Your task to perform on an android device: move a message to another label in the gmail app Image 0: 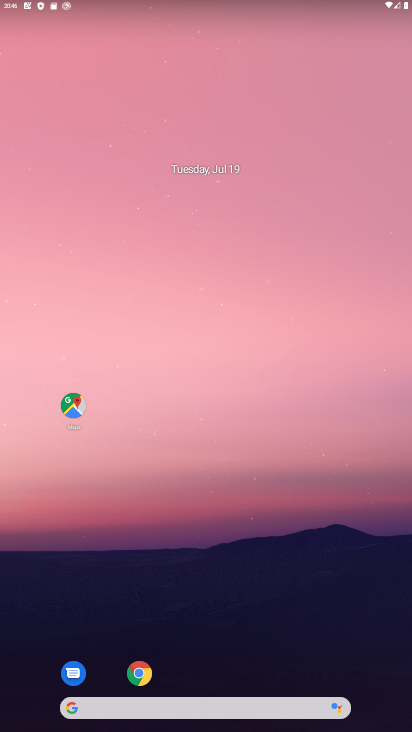
Step 0: drag from (198, 679) to (252, 89)
Your task to perform on an android device: move a message to another label in the gmail app Image 1: 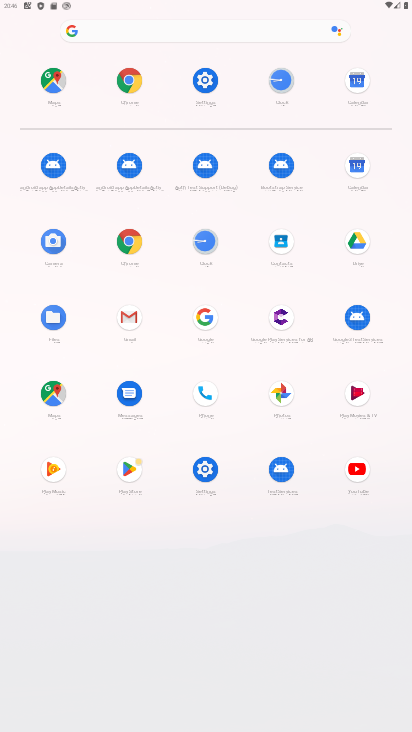
Step 1: click (132, 322)
Your task to perform on an android device: move a message to another label in the gmail app Image 2: 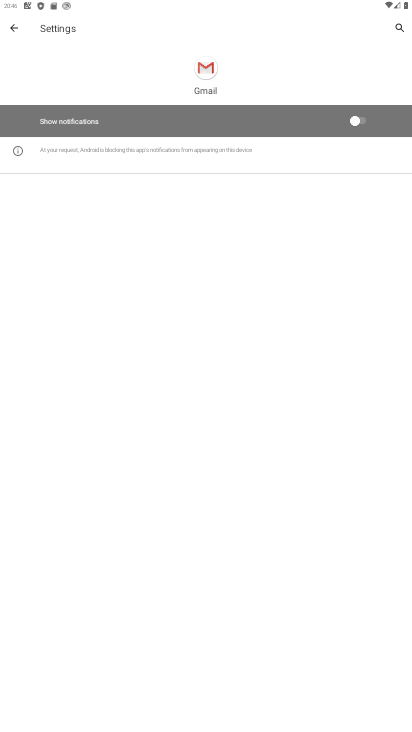
Step 2: click (14, 26)
Your task to perform on an android device: move a message to another label in the gmail app Image 3: 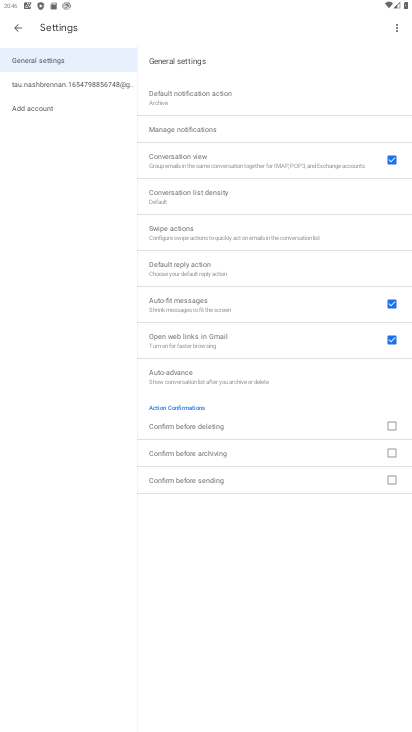
Step 3: click (20, 31)
Your task to perform on an android device: move a message to another label in the gmail app Image 4: 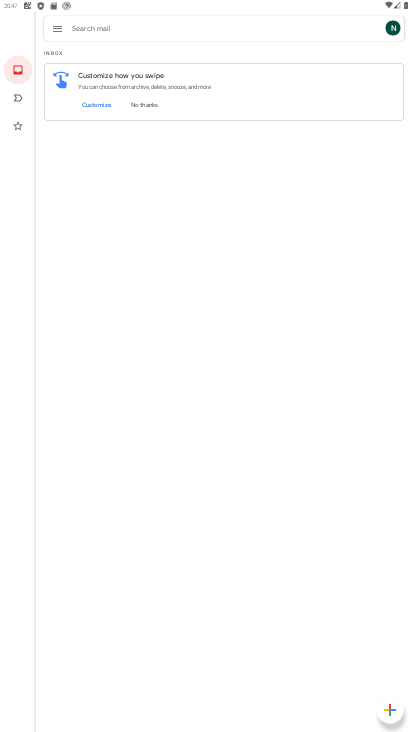
Step 4: click (147, 99)
Your task to perform on an android device: move a message to another label in the gmail app Image 5: 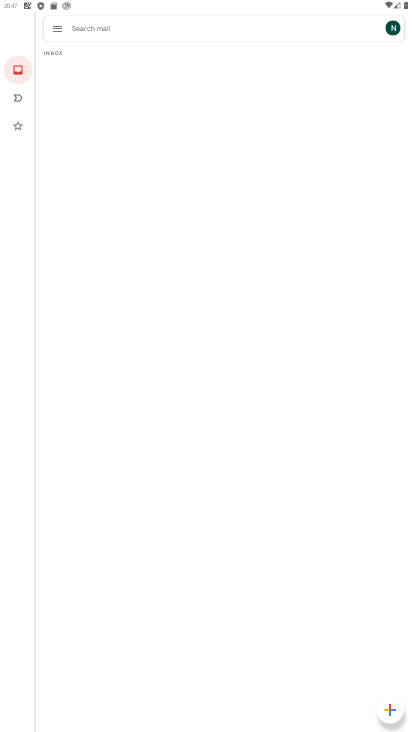
Step 5: task complete